Your task to perform on an android device: open a bookmark in the chrome app Image 0: 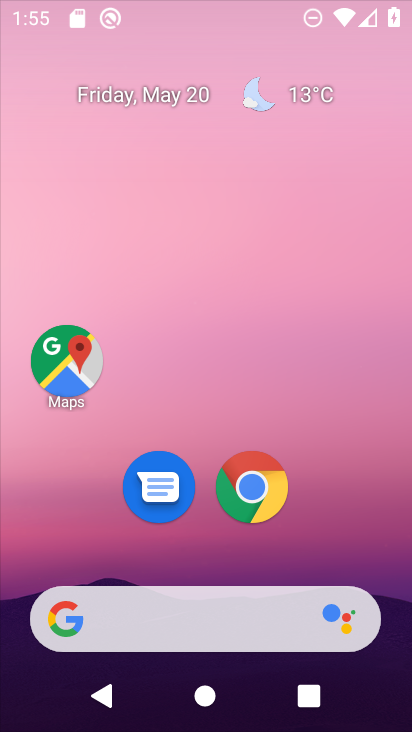
Step 0: press home button
Your task to perform on an android device: open a bookmark in the chrome app Image 1: 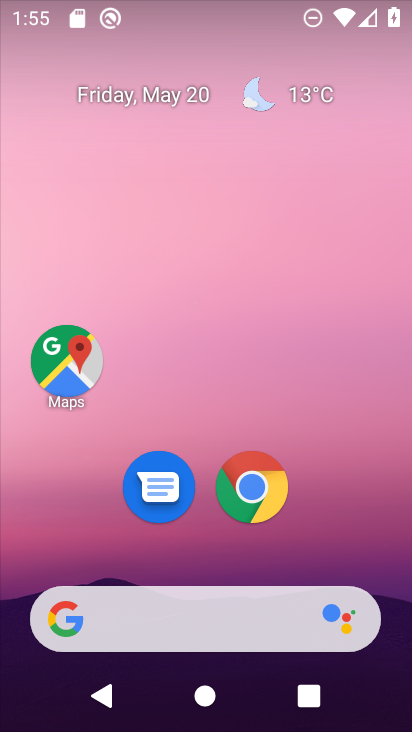
Step 1: click (252, 478)
Your task to perform on an android device: open a bookmark in the chrome app Image 2: 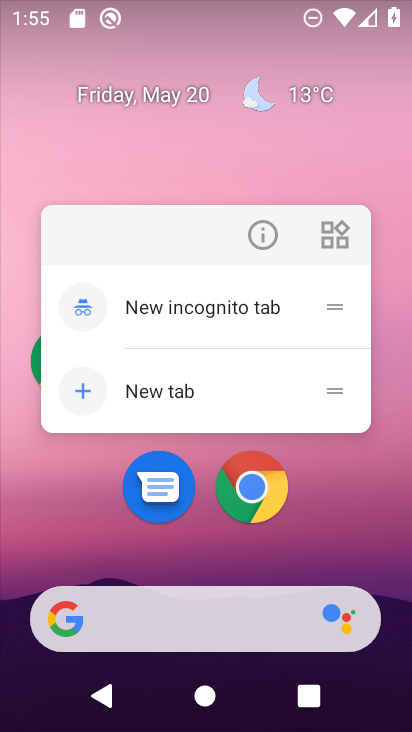
Step 2: click (252, 478)
Your task to perform on an android device: open a bookmark in the chrome app Image 3: 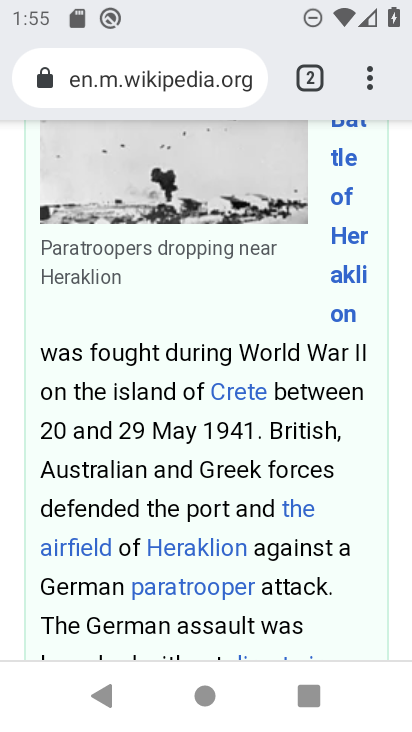
Step 3: click (366, 77)
Your task to perform on an android device: open a bookmark in the chrome app Image 4: 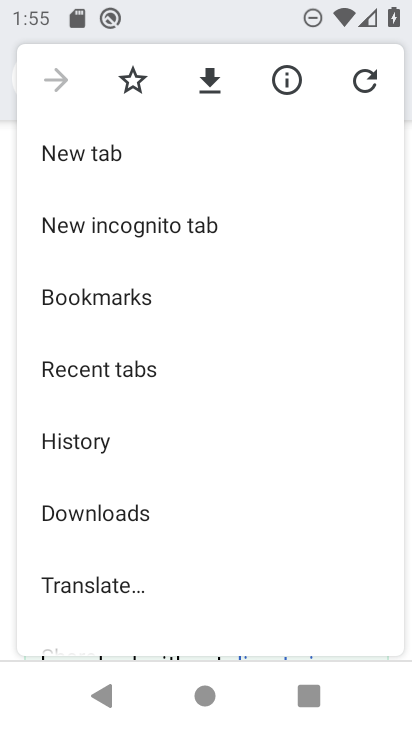
Step 4: click (161, 296)
Your task to perform on an android device: open a bookmark in the chrome app Image 5: 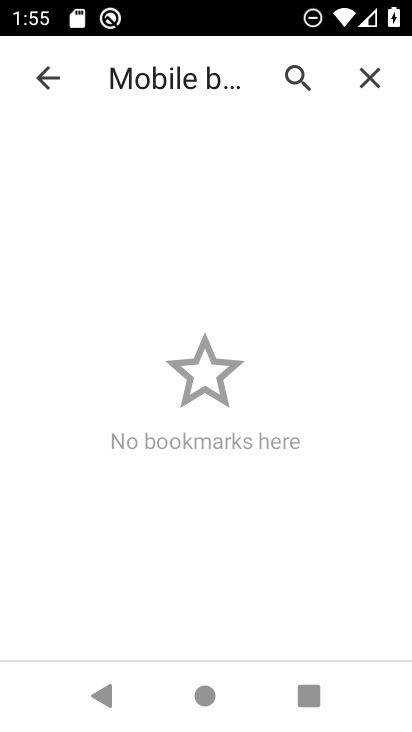
Step 5: task complete